Your task to perform on an android device: find photos in the google photos app Image 0: 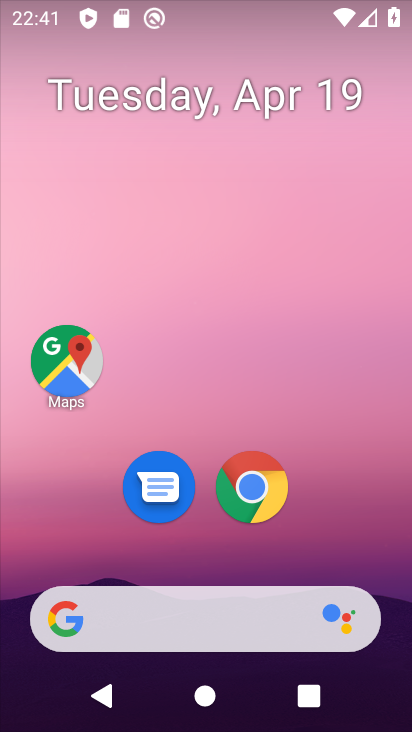
Step 0: drag from (145, 599) to (349, 69)
Your task to perform on an android device: find photos in the google photos app Image 1: 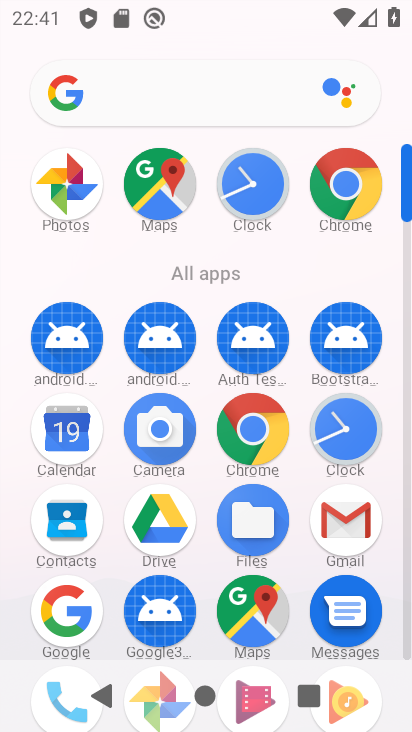
Step 1: drag from (156, 573) to (282, 300)
Your task to perform on an android device: find photos in the google photos app Image 2: 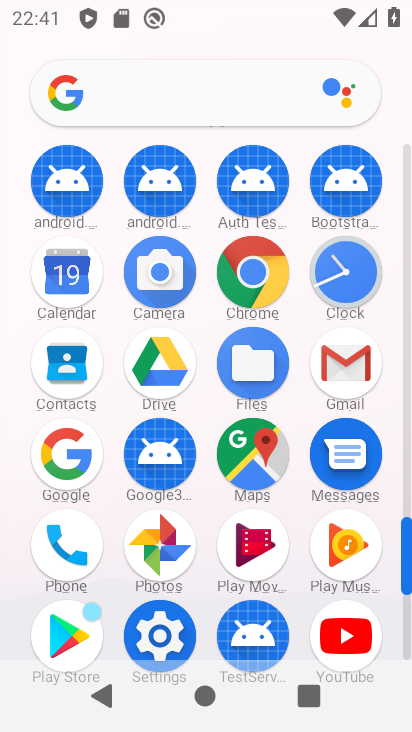
Step 2: click (158, 568)
Your task to perform on an android device: find photos in the google photos app Image 3: 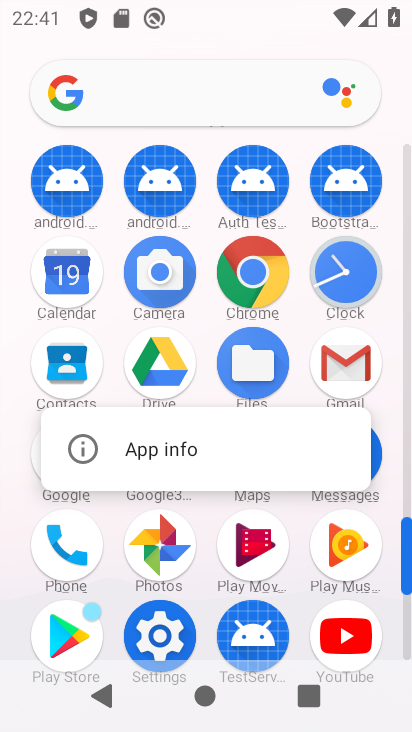
Step 3: click (162, 571)
Your task to perform on an android device: find photos in the google photos app Image 4: 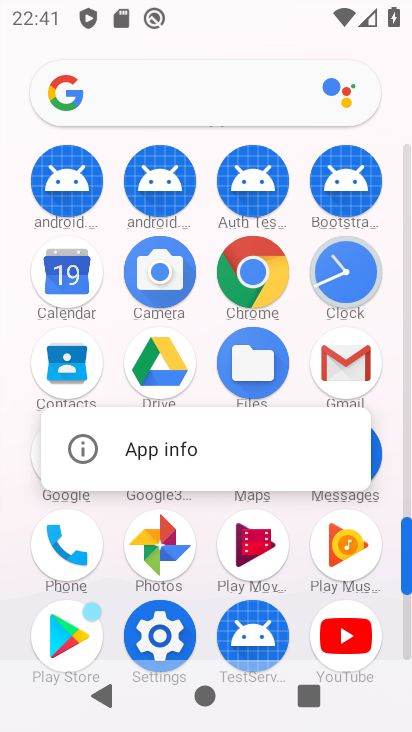
Step 4: click (178, 557)
Your task to perform on an android device: find photos in the google photos app Image 5: 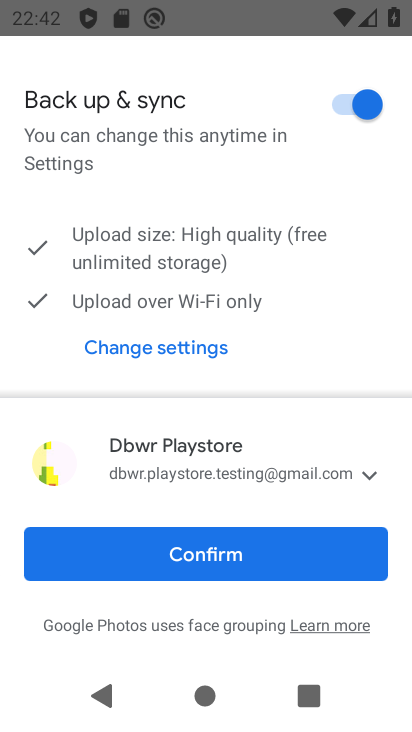
Step 5: click (165, 563)
Your task to perform on an android device: find photos in the google photos app Image 6: 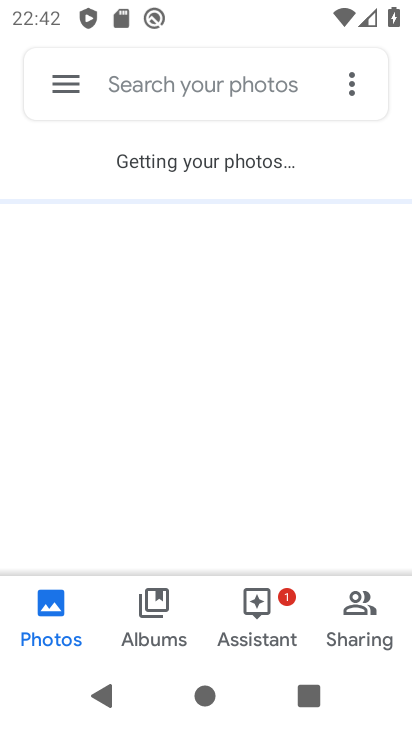
Step 6: task complete